Your task to perform on an android device: Do I have any events today? Image 0: 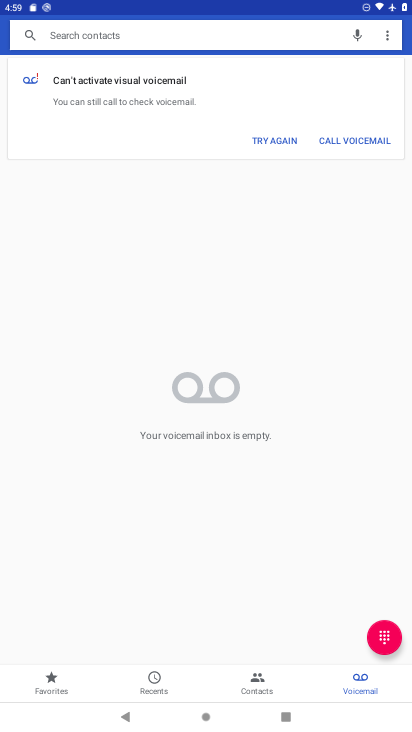
Step 0: press home button
Your task to perform on an android device: Do I have any events today? Image 1: 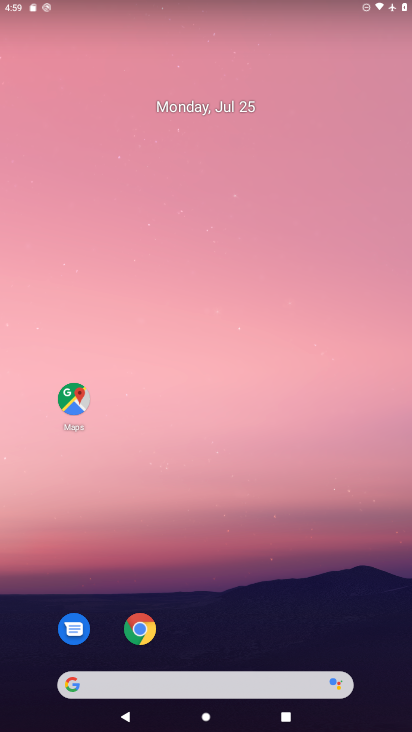
Step 1: drag from (161, 706) to (256, 47)
Your task to perform on an android device: Do I have any events today? Image 2: 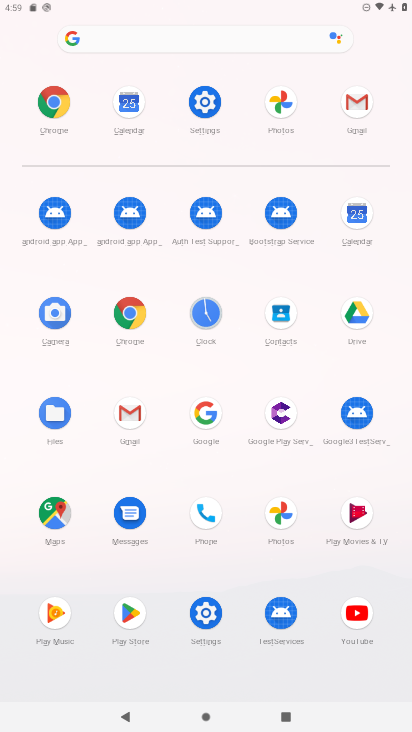
Step 2: click (358, 215)
Your task to perform on an android device: Do I have any events today? Image 3: 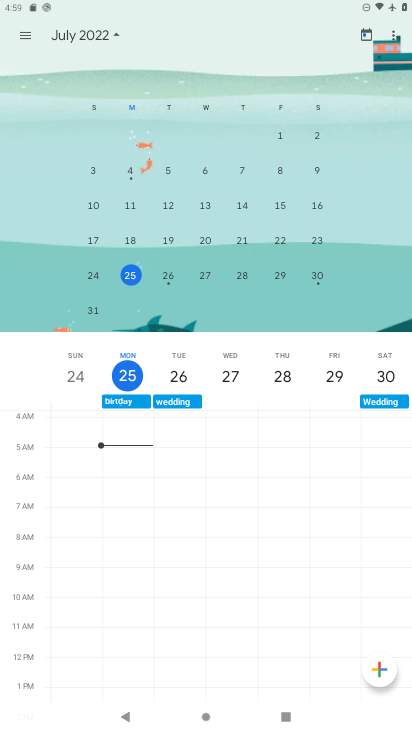
Step 3: click (126, 277)
Your task to perform on an android device: Do I have any events today? Image 4: 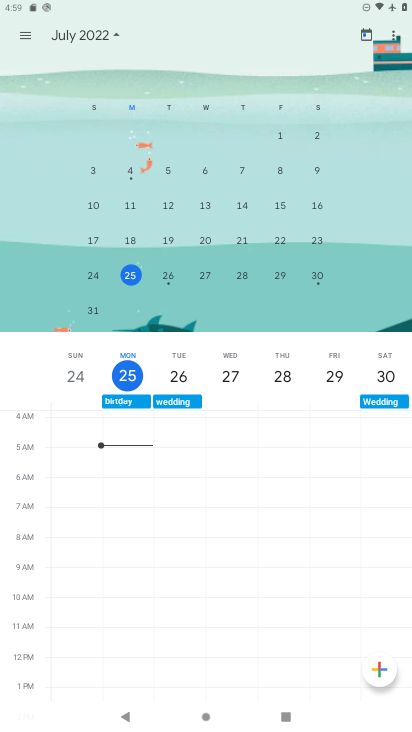
Step 4: task complete